Your task to perform on an android device: open a bookmark in the chrome app Image 0: 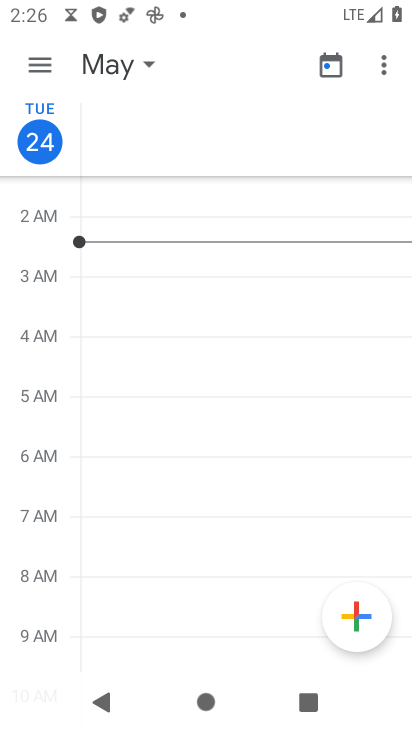
Step 0: press home button
Your task to perform on an android device: open a bookmark in the chrome app Image 1: 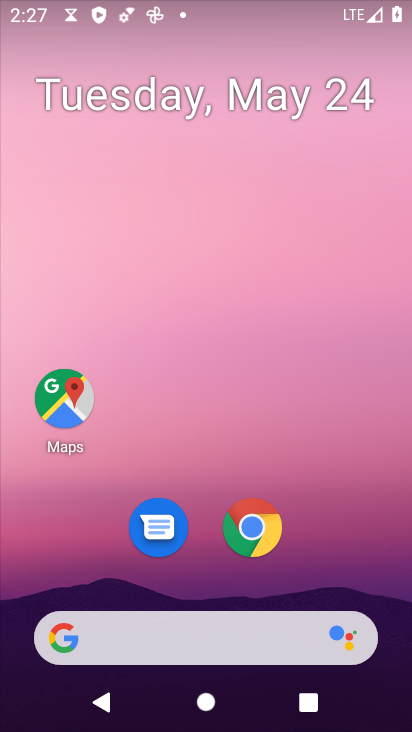
Step 1: click (267, 542)
Your task to perform on an android device: open a bookmark in the chrome app Image 2: 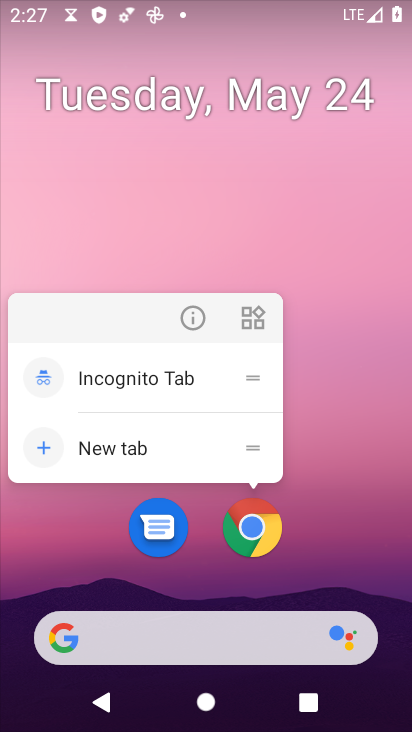
Step 2: click (267, 542)
Your task to perform on an android device: open a bookmark in the chrome app Image 3: 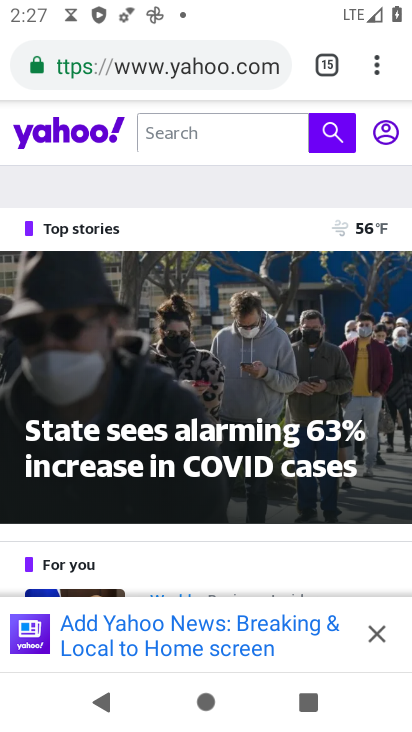
Step 3: task complete